Your task to perform on an android device: Open internet settings Image 0: 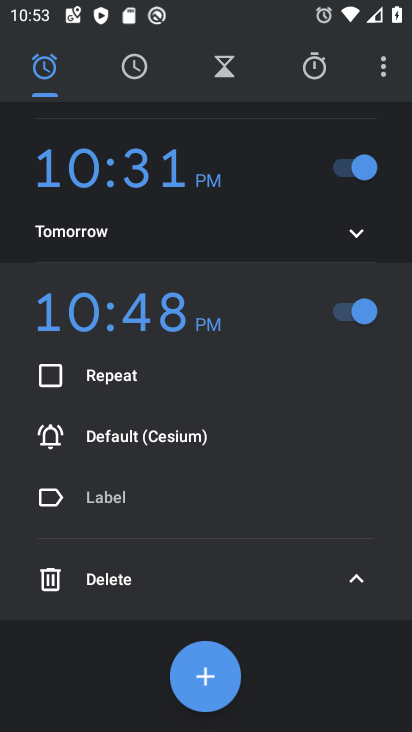
Step 0: press home button
Your task to perform on an android device: Open internet settings Image 1: 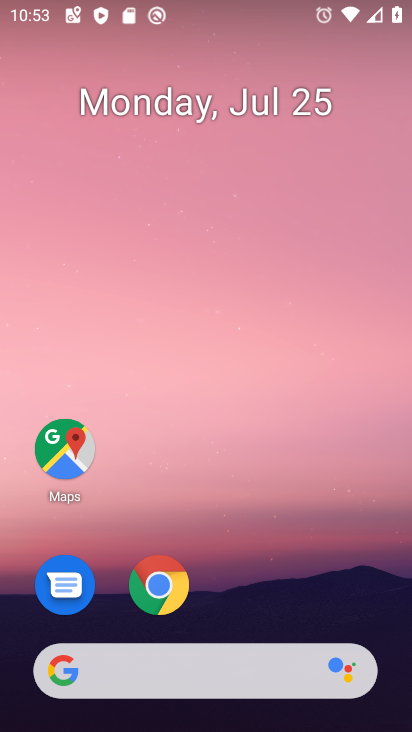
Step 1: drag from (205, 636) to (233, 4)
Your task to perform on an android device: Open internet settings Image 2: 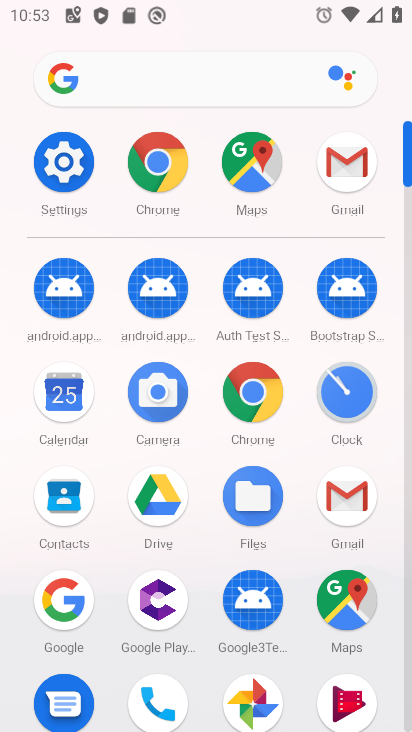
Step 2: click (58, 154)
Your task to perform on an android device: Open internet settings Image 3: 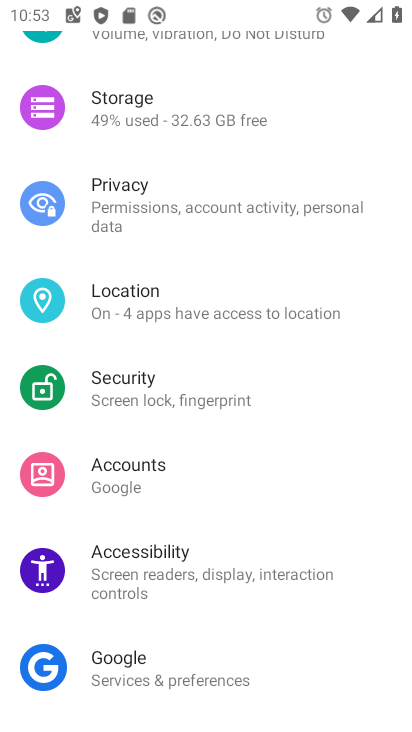
Step 3: drag from (172, 171) to (168, 679)
Your task to perform on an android device: Open internet settings Image 4: 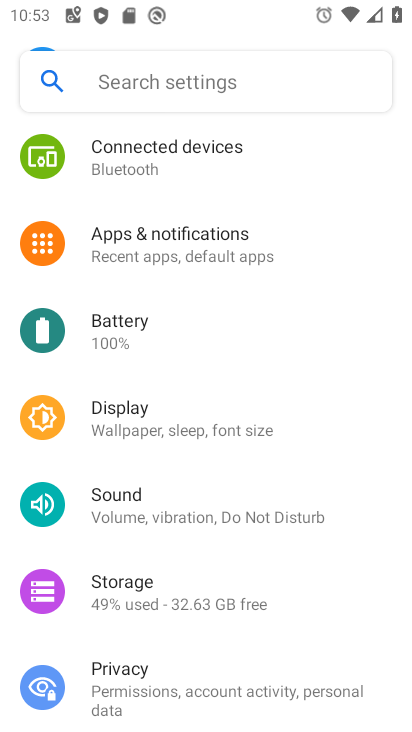
Step 4: drag from (187, 174) to (175, 677)
Your task to perform on an android device: Open internet settings Image 5: 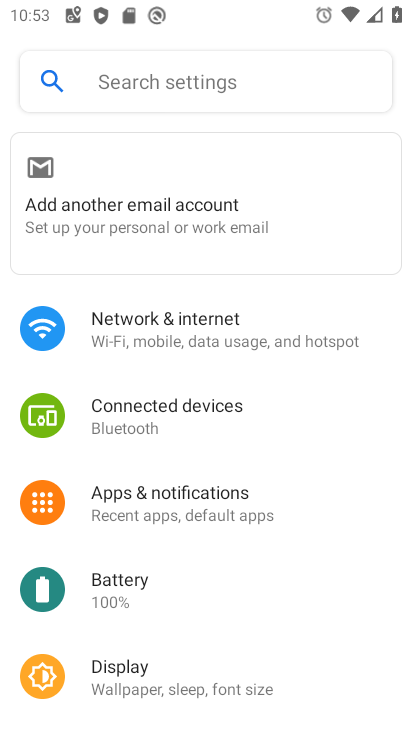
Step 5: click (149, 343)
Your task to perform on an android device: Open internet settings Image 6: 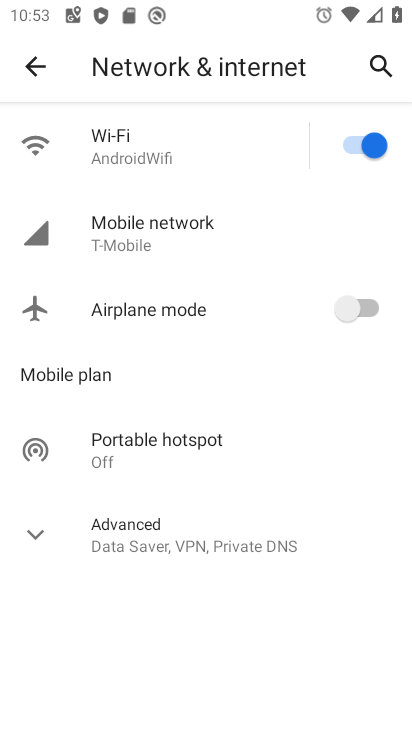
Step 6: click (128, 230)
Your task to perform on an android device: Open internet settings Image 7: 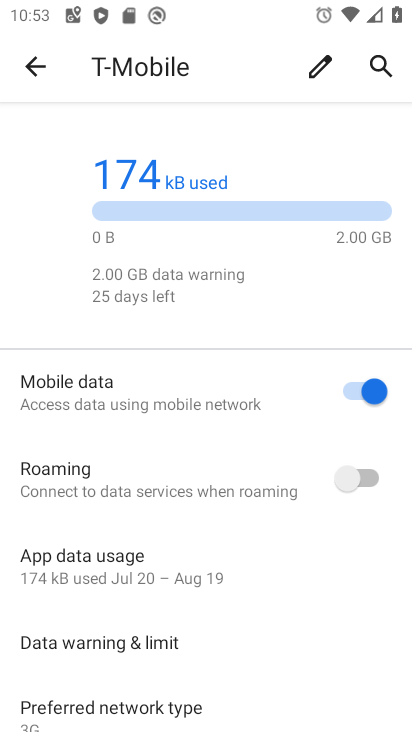
Step 7: task complete